Your task to perform on an android device: Open eBay Image 0: 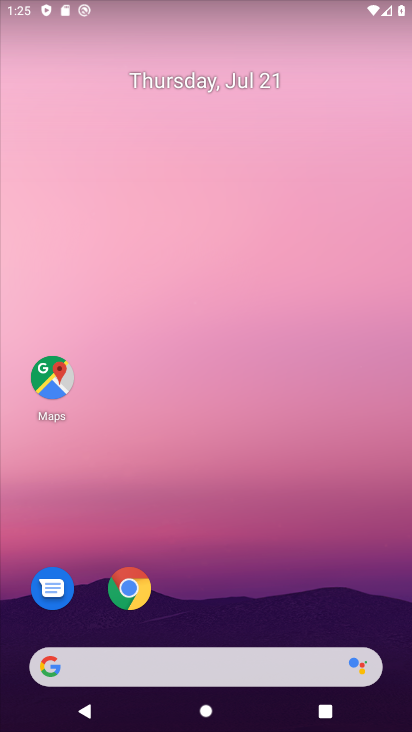
Step 0: click (114, 589)
Your task to perform on an android device: Open eBay Image 1: 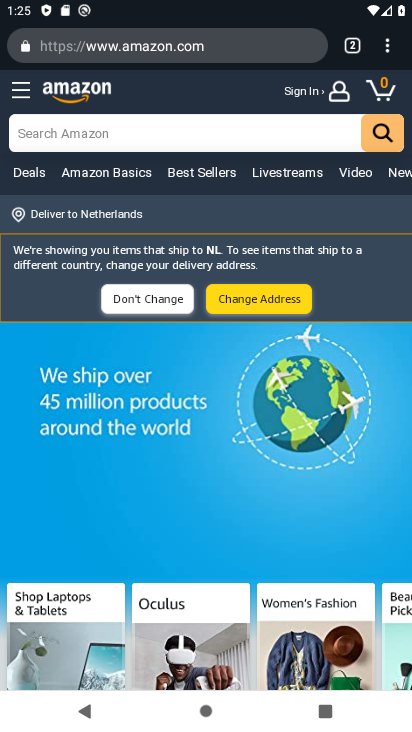
Step 1: click (342, 44)
Your task to perform on an android device: Open eBay Image 2: 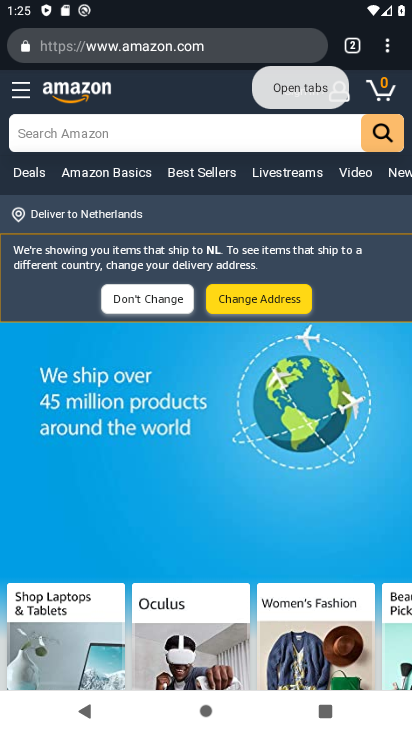
Step 2: click (347, 44)
Your task to perform on an android device: Open eBay Image 3: 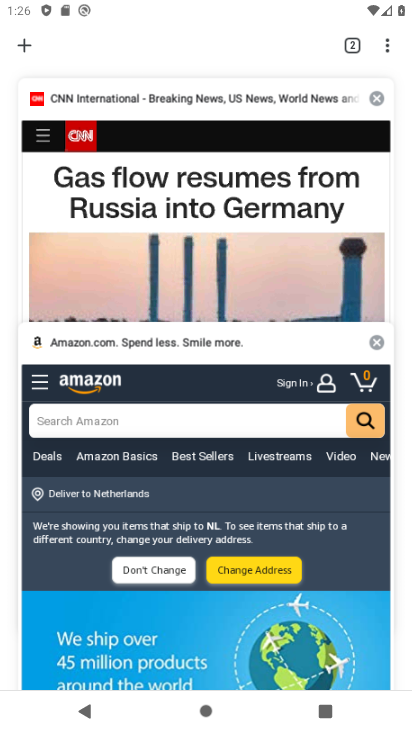
Step 3: click (21, 36)
Your task to perform on an android device: Open eBay Image 4: 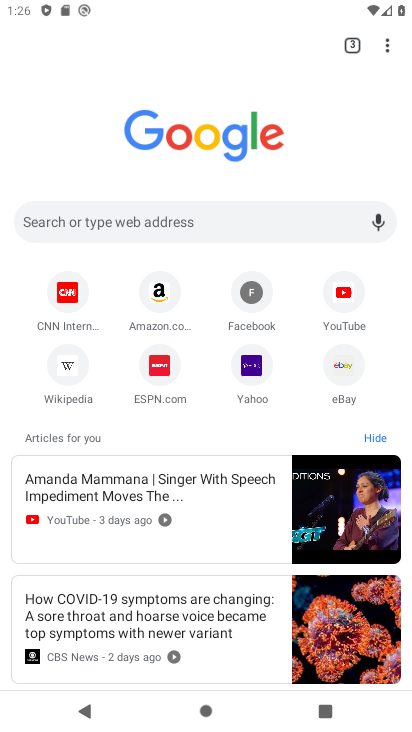
Step 4: click (342, 365)
Your task to perform on an android device: Open eBay Image 5: 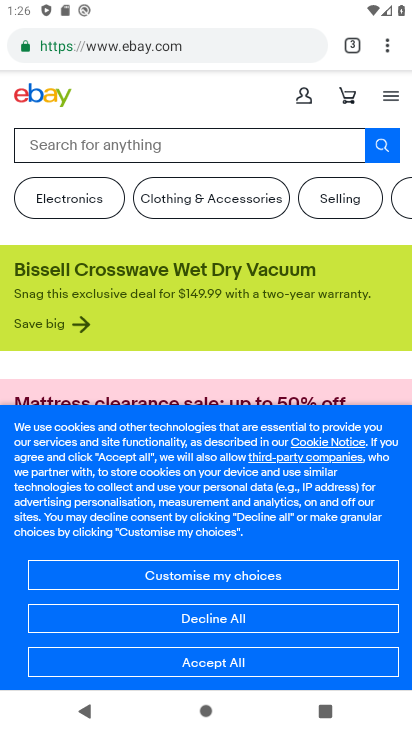
Step 5: task complete